Your task to perform on an android device: delete the emails in spam in the gmail app Image 0: 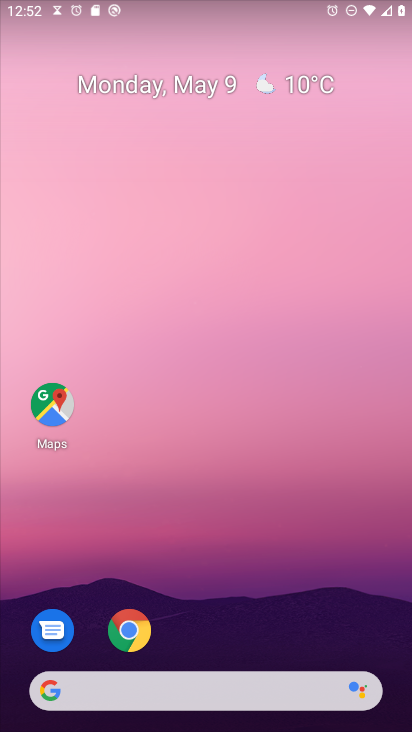
Step 0: drag from (209, 705) to (380, 217)
Your task to perform on an android device: delete the emails in spam in the gmail app Image 1: 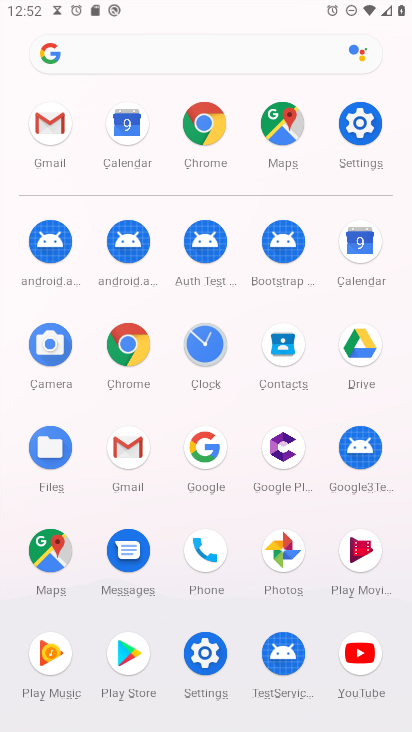
Step 1: click (39, 133)
Your task to perform on an android device: delete the emails in spam in the gmail app Image 2: 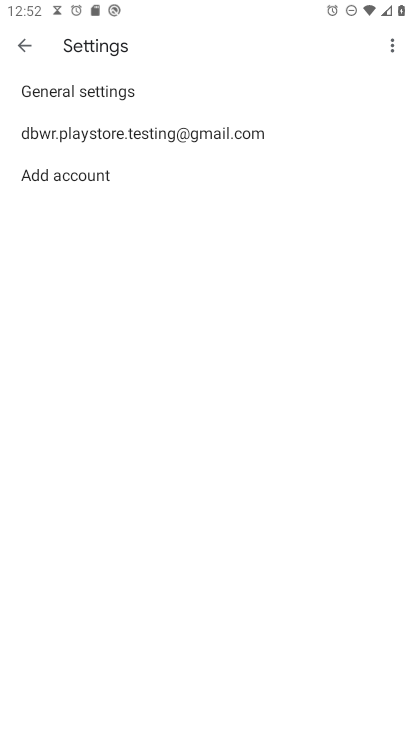
Step 2: click (27, 46)
Your task to perform on an android device: delete the emails in spam in the gmail app Image 3: 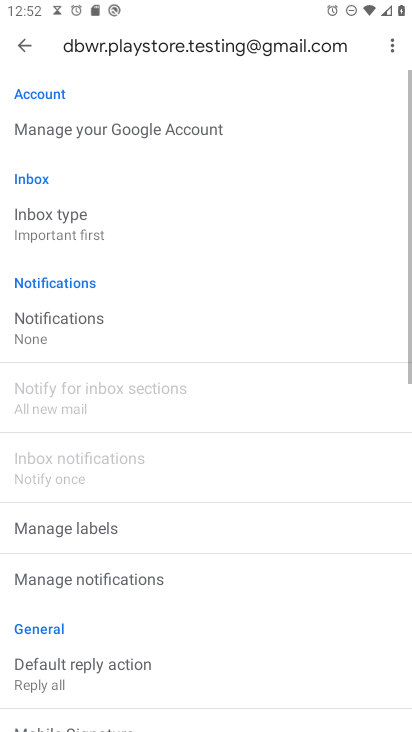
Step 3: click (27, 47)
Your task to perform on an android device: delete the emails in spam in the gmail app Image 4: 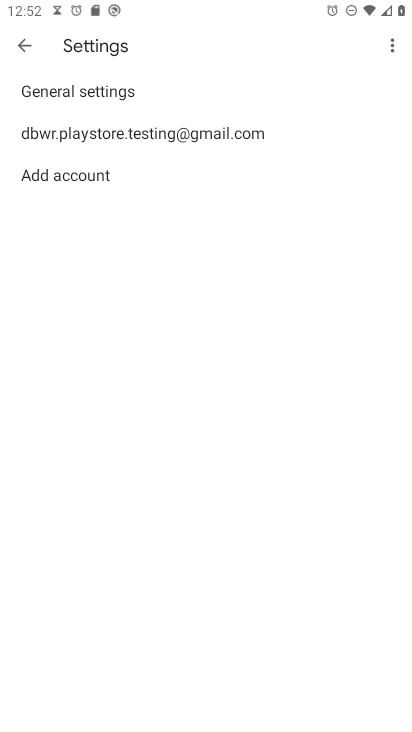
Step 4: click (27, 47)
Your task to perform on an android device: delete the emails in spam in the gmail app Image 5: 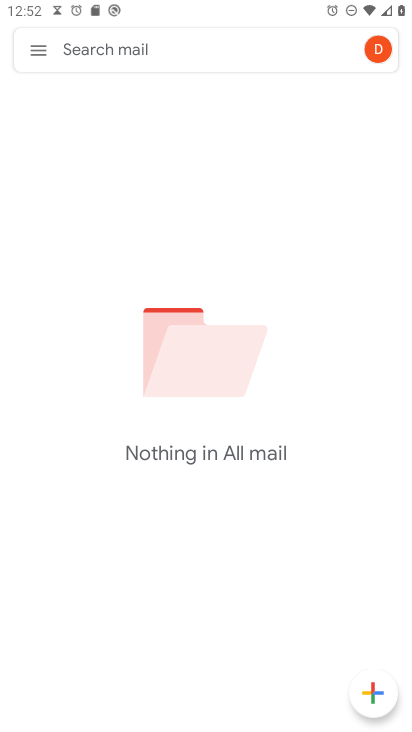
Step 5: click (45, 42)
Your task to perform on an android device: delete the emails in spam in the gmail app Image 6: 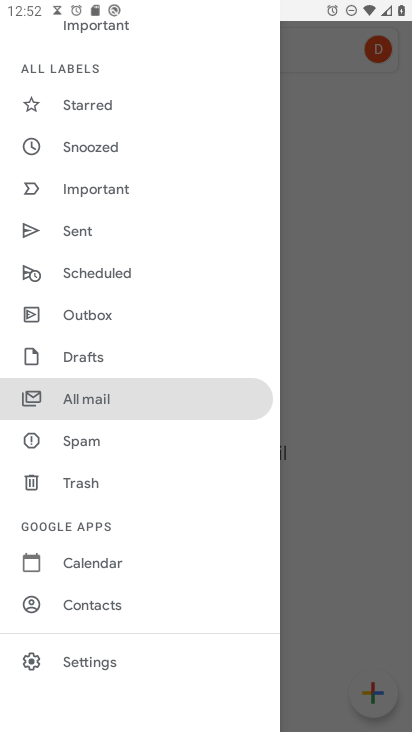
Step 6: click (98, 441)
Your task to perform on an android device: delete the emails in spam in the gmail app Image 7: 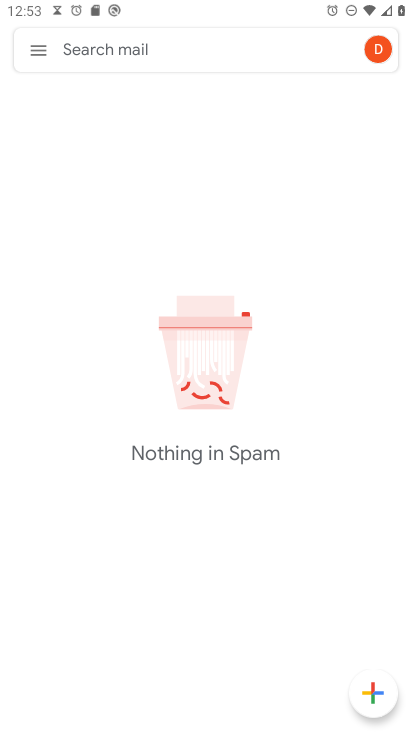
Step 7: task complete